Your task to perform on an android device: What's the weather today? Image 0: 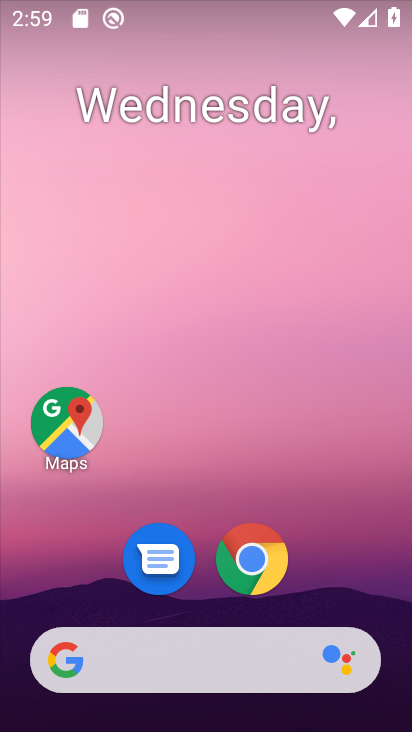
Step 0: click (162, 659)
Your task to perform on an android device: What's the weather today? Image 1: 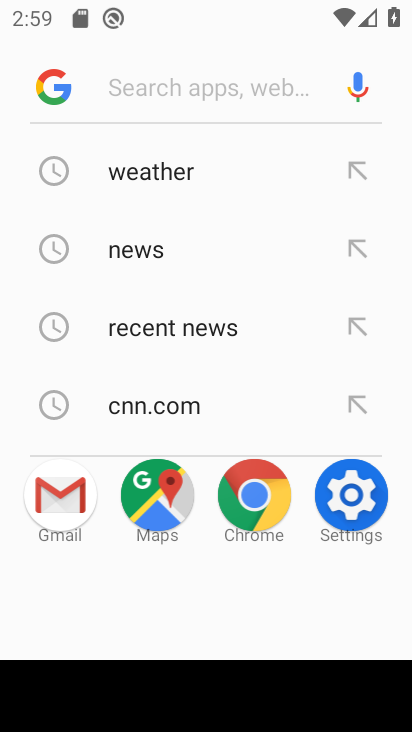
Step 1: click (177, 184)
Your task to perform on an android device: What's the weather today? Image 2: 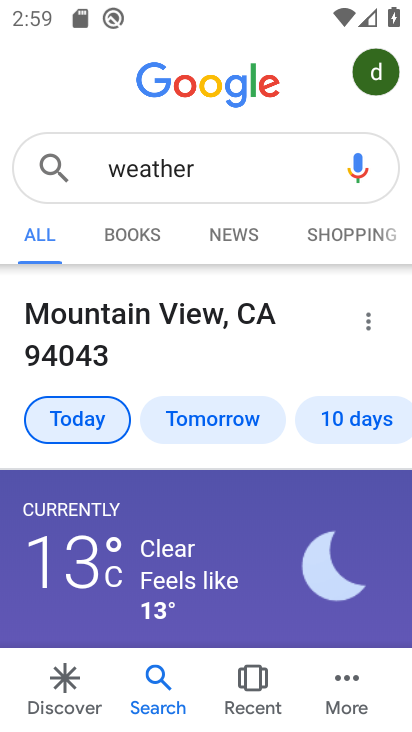
Step 2: task complete